Your task to perform on an android device: Go to wifi settings Image 0: 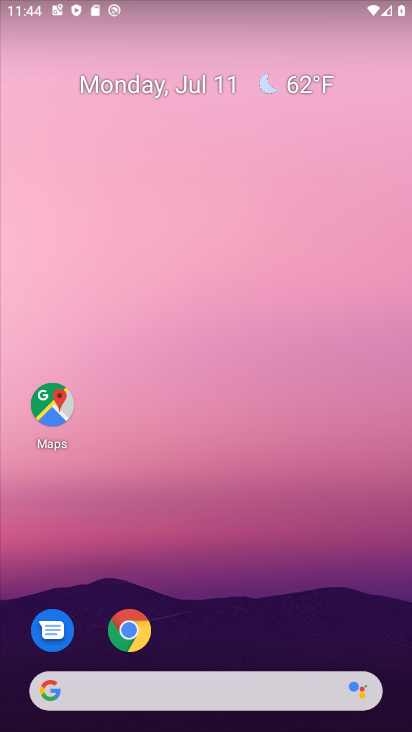
Step 0: drag from (217, 686) to (304, 67)
Your task to perform on an android device: Go to wifi settings Image 1: 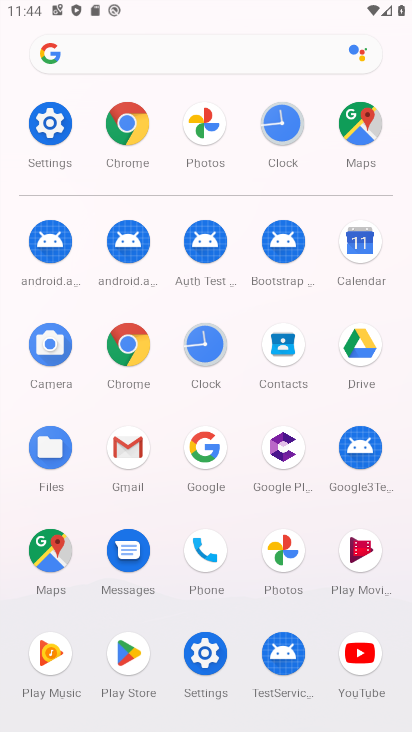
Step 1: click (62, 117)
Your task to perform on an android device: Go to wifi settings Image 2: 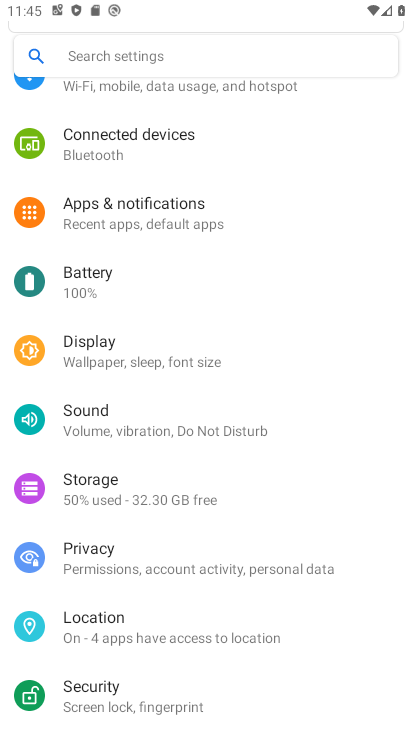
Step 2: drag from (91, 113) to (163, 465)
Your task to perform on an android device: Go to wifi settings Image 3: 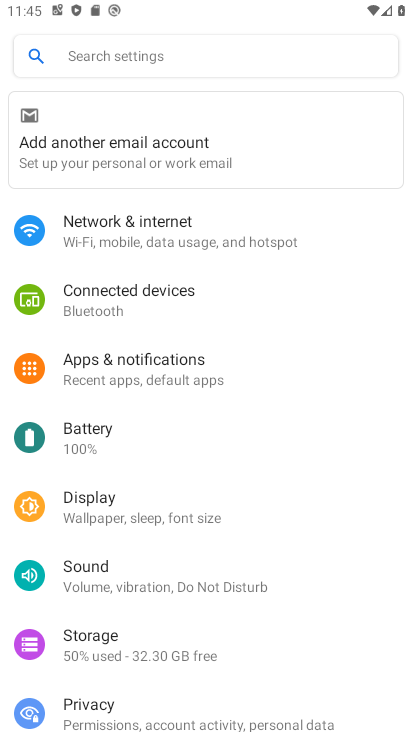
Step 3: click (149, 236)
Your task to perform on an android device: Go to wifi settings Image 4: 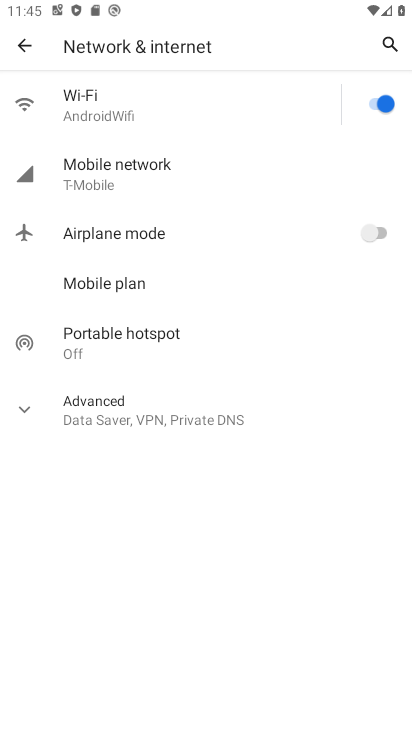
Step 4: click (129, 96)
Your task to perform on an android device: Go to wifi settings Image 5: 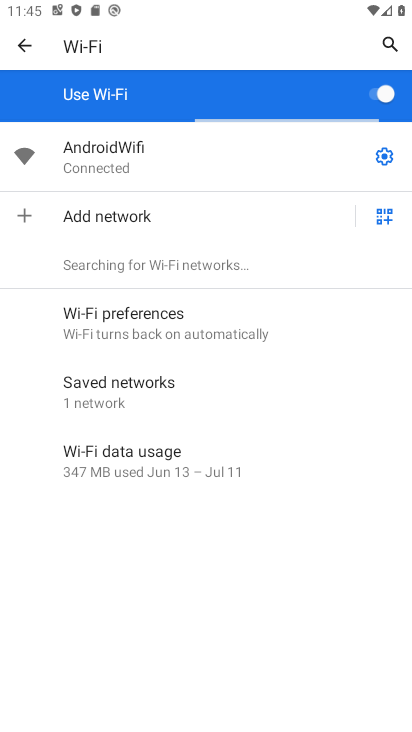
Step 5: task complete